Your task to perform on an android device: open app "Chime – Mobile Banking" Image 0: 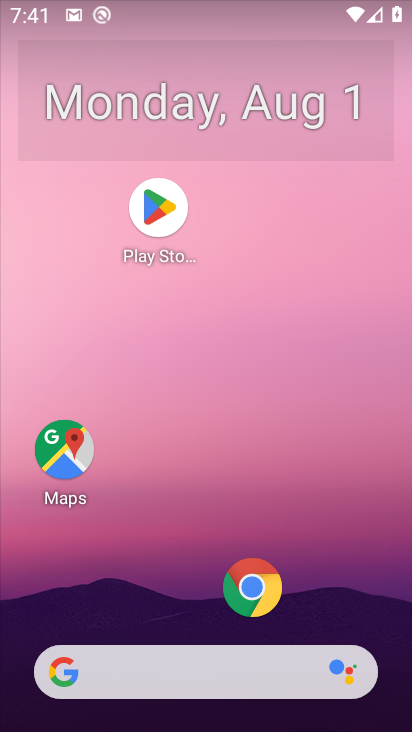
Step 0: click (161, 237)
Your task to perform on an android device: open app "Chime – Mobile Banking" Image 1: 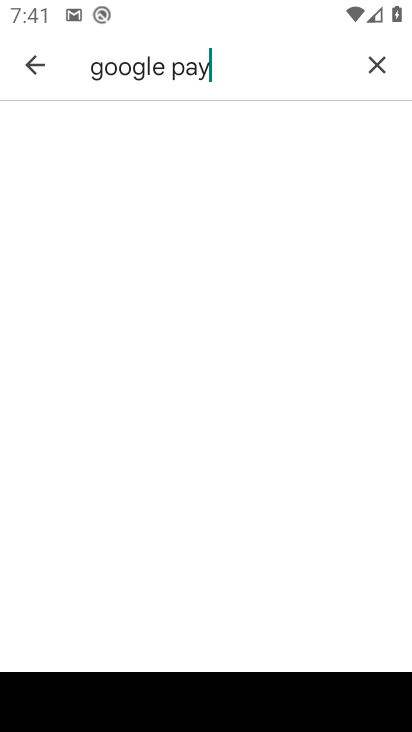
Step 1: click (372, 72)
Your task to perform on an android device: open app "Chime – Mobile Banking" Image 2: 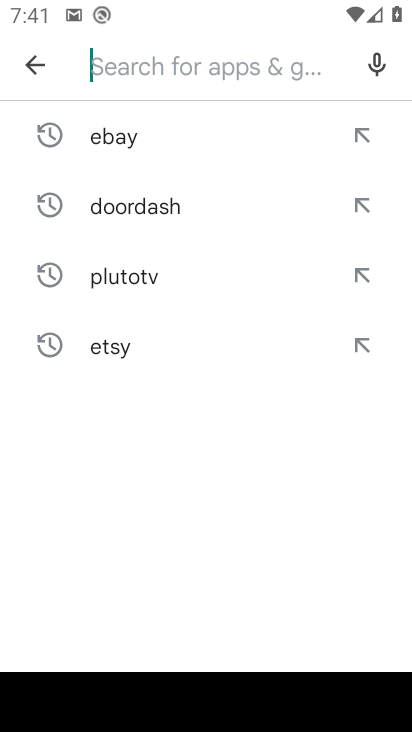
Step 2: click (198, 190)
Your task to perform on an android device: open app "Chime – Mobile Banking" Image 3: 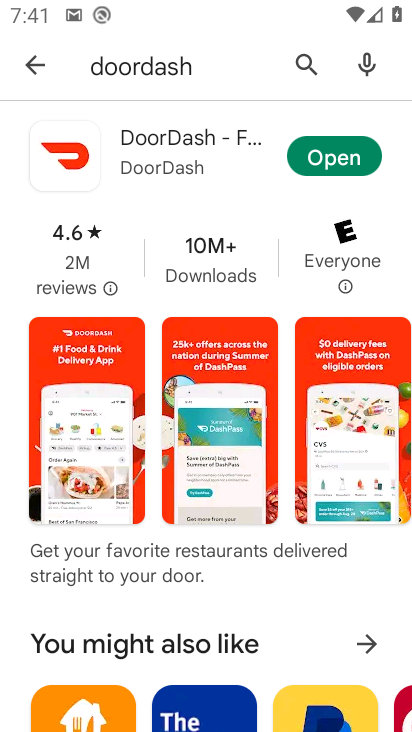
Step 3: click (309, 74)
Your task to perform on an android device: open app "Chime – Mobile Banking" Image 4: 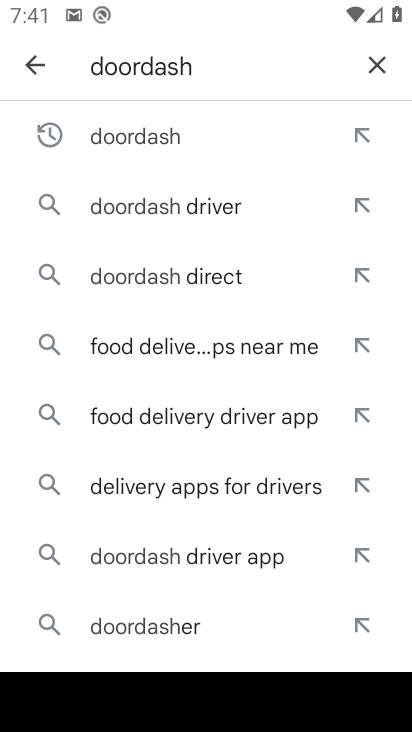
Step 4: click (382, 63)
Your task to perform on an android device: open app "Chime – Mobile Banking" Image 5: 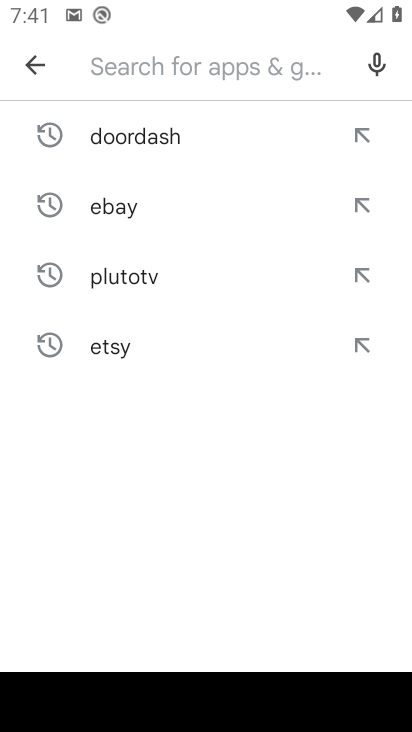
Step 5: type "chime"
Your task to perform on an android device: open app "Chime – Mobile Banking" Image 6: 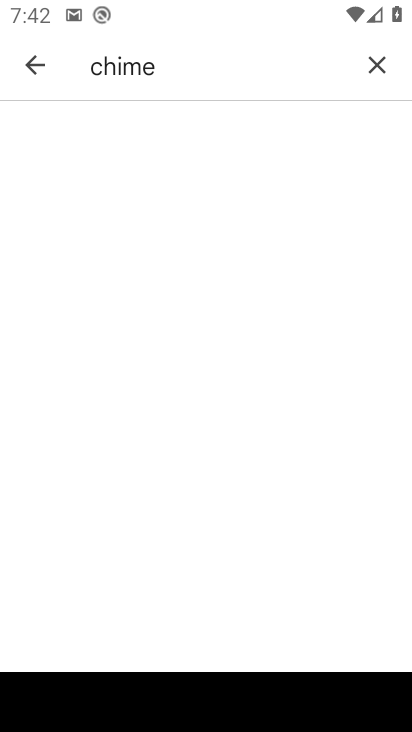
Step 6: task complete